Your task to perform on an android device: Empty the shopping cart on target.com. Search for "razer blade" on target.com, select the first entry, and add it to the cart. Image 0: 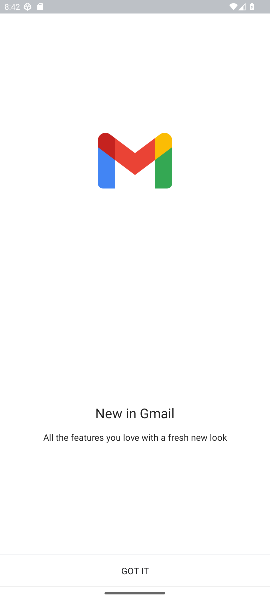
Step 0: press home button
Your task to perform on an android device: Empty the shopping cart on target.com. Search for "razer blade" on target.com, select the first entry, and add it to the cart. Image 1: 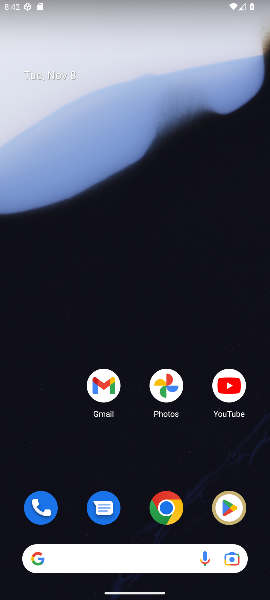
Step 1: click (174, 513)
Your task to perform on an android device: Empty the shopping cart on target.com. Search for "razer blade" on target.com, select the first entry, and add it to the cart. Image 2: 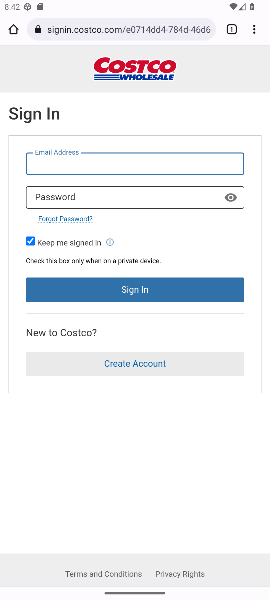
Step 2: click (93, 29)
Your task to perform on an android device: Empty the shopping cart on target.com. Search for "razer blade" on target.com, select the first entry, and add it to the cart. Image 3: 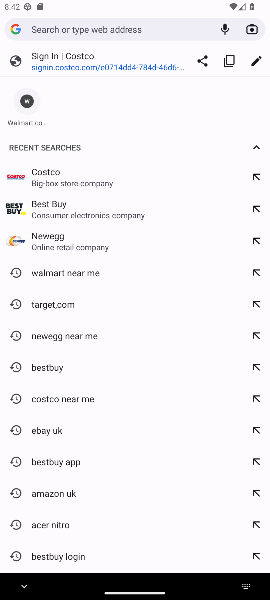
Step 3: type "targe"
Your task to perform on an android device: Empty the shopping cart on target.com. Search for "razer blade" on target.com, select the first entry, and add it to the cart. Image 4: 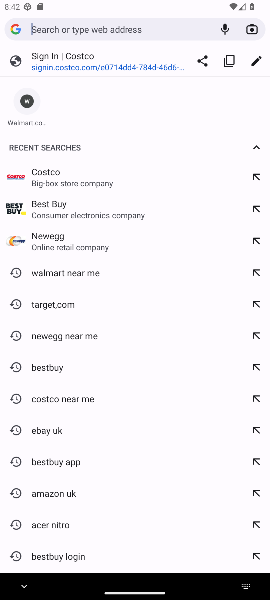
Step 4: click (45, 308)
Your task to perform on an android device: Empty the shopping cart on target.com. Search for "razer blade" on target.com, select the first entry, and add it to the cart. Image 5: 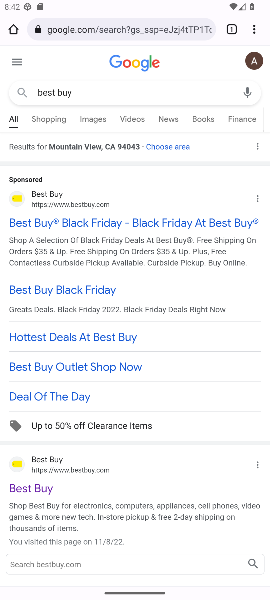
Step 5: drag from (96, 437) to (116, 210)
Your task to perform on an android device: Empty the shopping cart on target.com. Search for "razer blade" on target.com, select the first entry, and add it to the cart. Image 6: 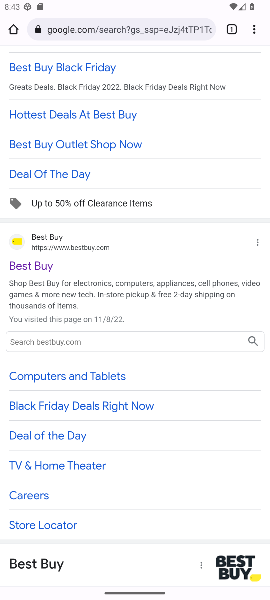
Step 6: click (26, 267)
Your task to perform on an android device: Empty the shopping cart on target.com. Search for "razer blade" on target.com, select the first entry, and add it to the cart. Image 7: 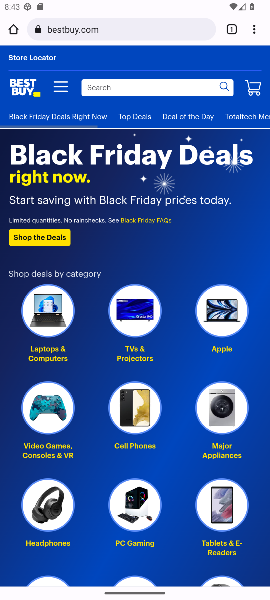
Step 7: click (135, 91)
Your task to perform on an android device: Empty the shopping cart on target.com. Search for "razer blade" on target.com, select the first entry, and add it to the cart. Image 8: 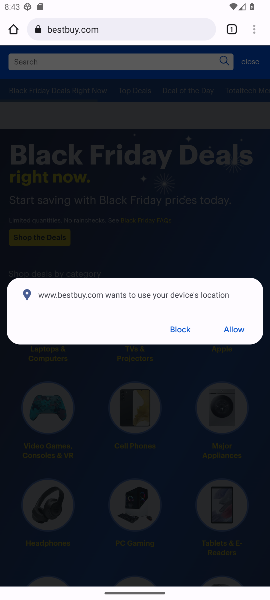
Step 8: click (85, 31)
Your task to perform on an android device: Empty the shopping cart on target.com. Search for "razer blade" on target.com, select the first entry, and add it to the cart. Image 9: 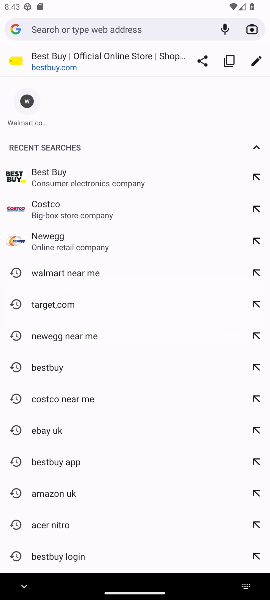
Step 9: click (36, 307)
Your task to perform on an android device: Empty the shopping cart on target.com. Search for "razer blade" on target.com, select the first entry, and add it to the cart. Image 10: 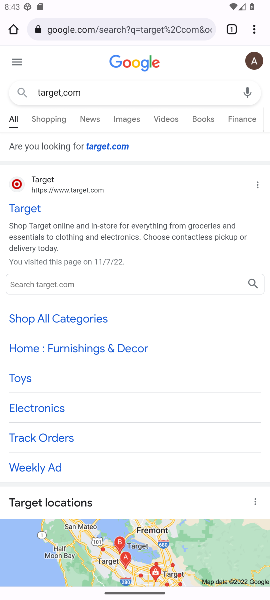
Step 10: click (19, 206)
Your task to perform on an android device: Empty the shopping cart on target.com. Search for "razer blade" on target.com, select the first entry, and add it to the cart. Image 11: 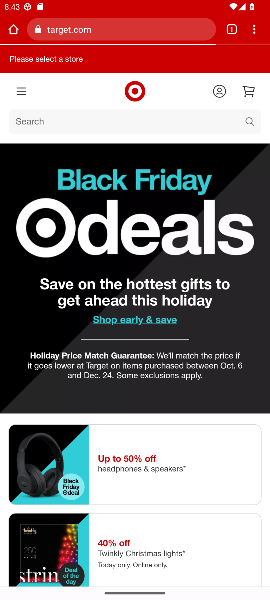
Step 11: click (249, 120)
Your task to perform on an android device: Empty the shopping cart on target.com. Search for "razer blade" on target.com, select the first entry, and add it to the cart. Image 12: 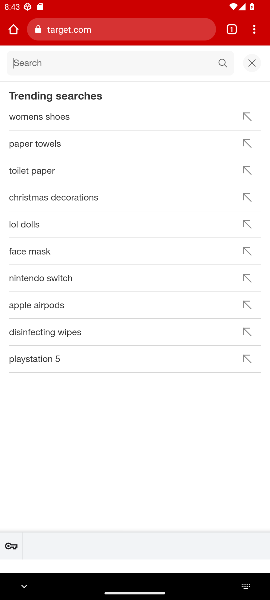
Step 12: type "razer blader"
Your task to perform on an android device: Empty the shopping cart on target.com. Search for "razer blade" on target.com, select the first entry, and add it to the cart. Image 13: 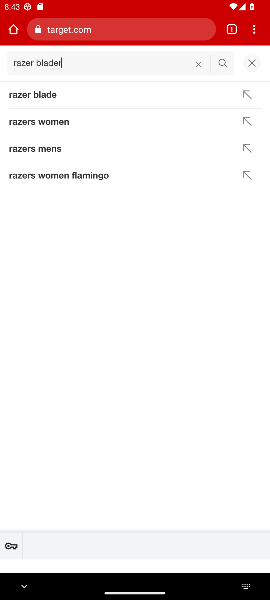
Step 13: click (51, 93)
Your task to perform on an android device: Empty the shopping cart on target.com. Search for "razer blade" on target.com, select the first entry, and add it to the cart. Image 14: 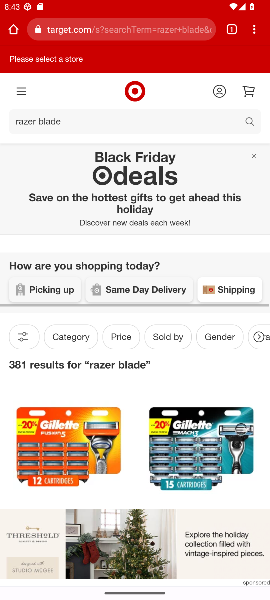
Step 14: drag from (38, 514) to (134, 150)
Your task to perform on an android device: Empty the shopping cart on target.com. Search for "razer blade" on target.com, select the first entry, and add it to the cart. Image 15: 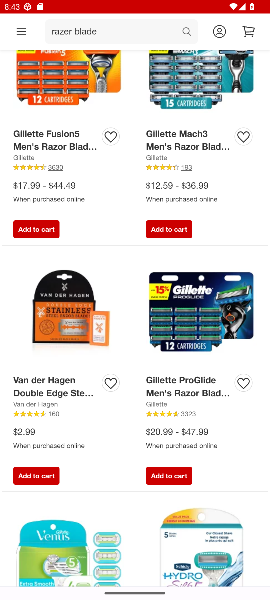
Step 15: click (180, 388)
Your task to perform on an android device: Empty the shopping cart on target.com. Search for "razer blade" on target.com, select the first entry, and add it to the cart. Image 16: 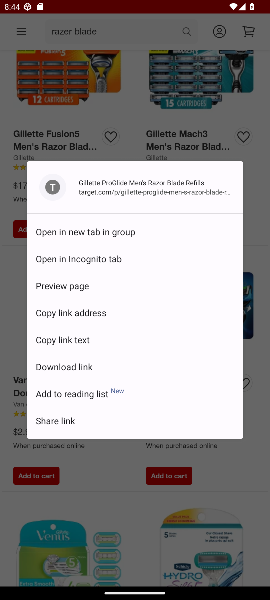
Step 16: click (80, 234)
Your task to perform on an android device: Empty the shopping cart on target.com. Search for "razer blade" on target.com, select the first entry, and add it to the cart. Image 17: 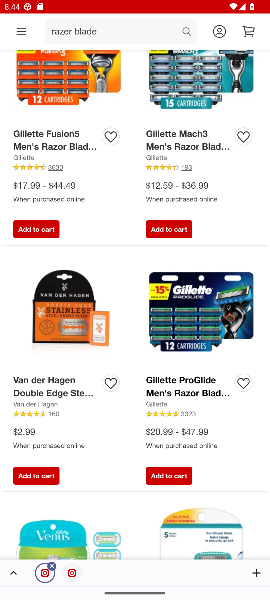
Step 17: click (199, 330)
Your task to perform on an android device: Empty the shopping cart on target.com. Search for "razer blade" on target.com, select the first entry, and add it to the cart. Image 18: 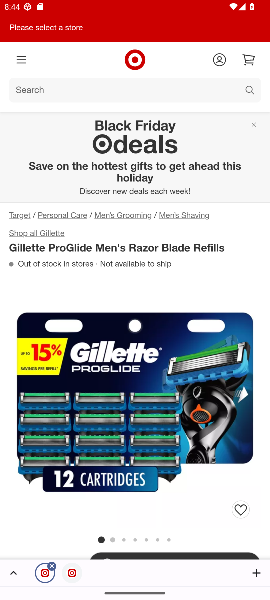
Step 18: drag from (163, 436) to (114, 176)
Your task to perform on an android device: Empty the shopping cart on target.com. Search for "razer blade" on target.com, select the first entry, and add it to the cart. Image 19: 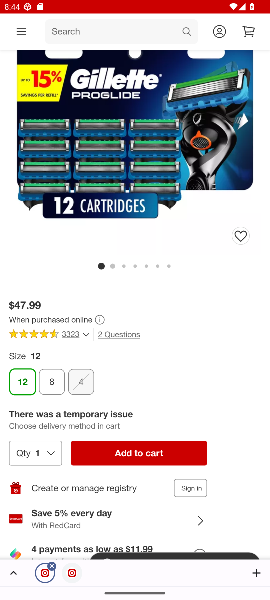
Step 19: click (158, 448)
Your task to perform on an android device: Empty the shopping cart on target.com. Search for "razer blade" on target.com, select the first entry, and add it to the cart. Image 20: 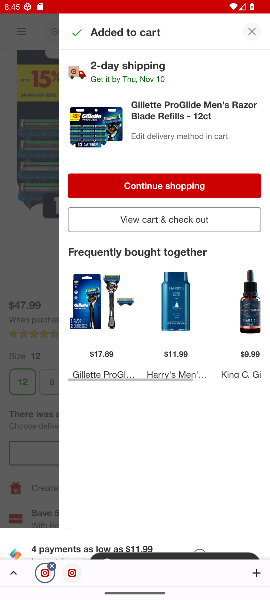
Step 20: click (140, 220)
Your task to perform on an android device: Empty the shopping cart on target.com. Search for "razer blade" on target.com, select the first entry, and add it to the cart. Image 21: 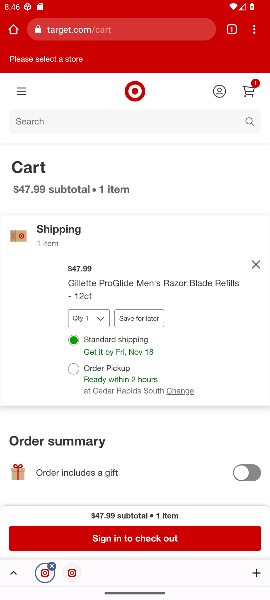
Step 21: drag from (101, 439) to (66, 298)
Your task to perform on an android device: Empty the shopping cart on target.com. Search for "razer blade" on target.com, select the first entry, and add it to the cart. Image 22: 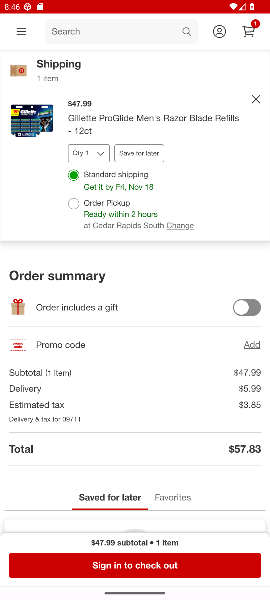
Step 22: click (150, 567)
Your task to perform on an android device: Empty the shopping cart on target.com. Search for "razer blade" on target.com, select the first entry, and add it to the cart. Image 23: 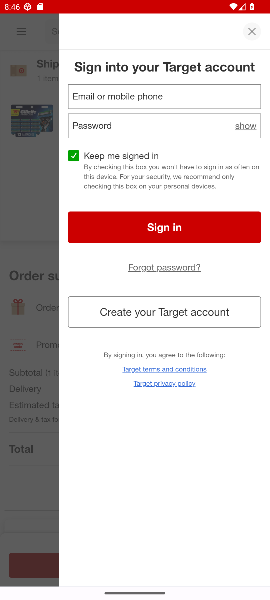
Step 23: task complete